Your task to perform on an android device: find photos in the google photos app Image 0: 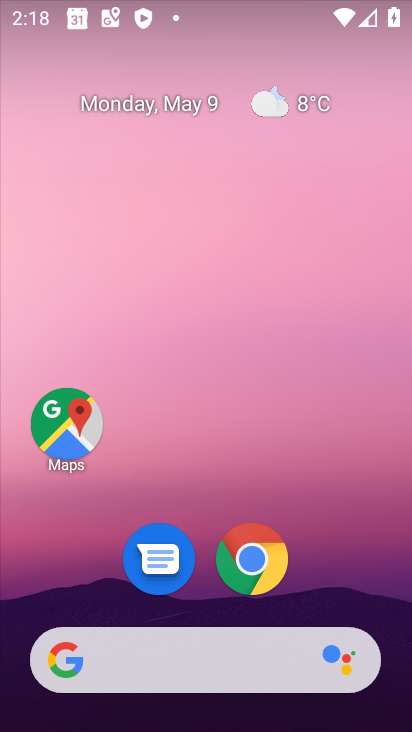
Step 0: press home button
Your task to perform on an android device: find photos in the google photos app Image 1: 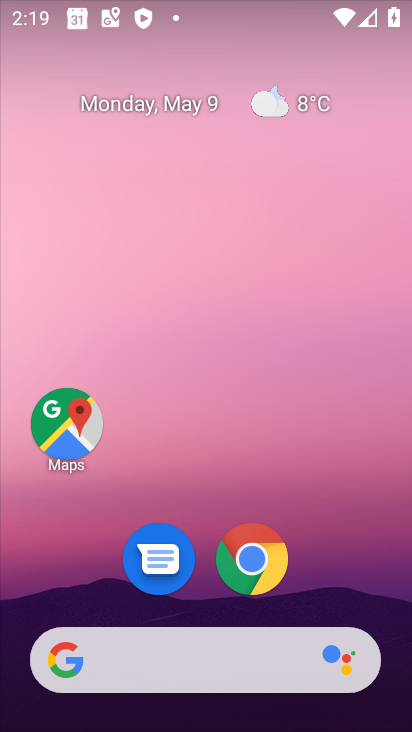
Step 1: drag from (321, 504) to (257, 65)
Your task to perform on an android device: find photos in the google photos app Image 2: 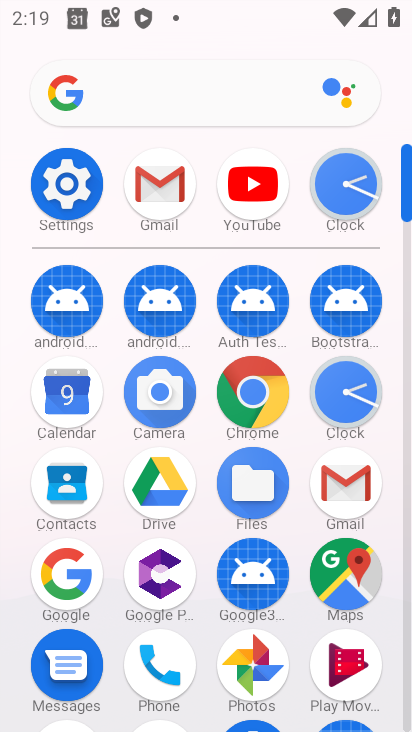
Step 2: click (255, 630)
Your task to perform on an android device: find photos in the google photos app Image 3: 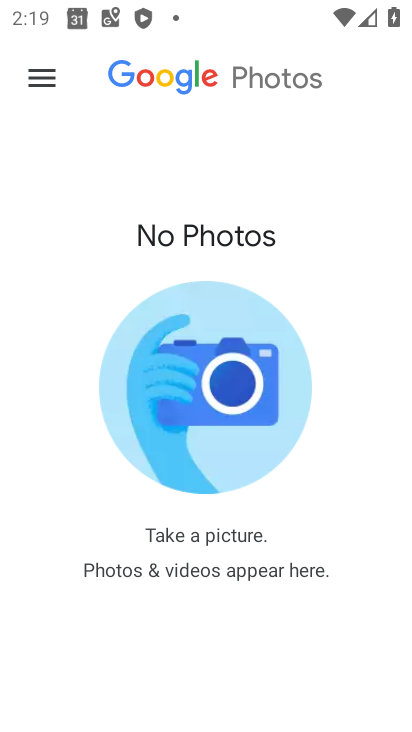
Step 3: task complete